Your task to perform on an android device: Open the Play Movies app and select the watchlist tab. Image 0: 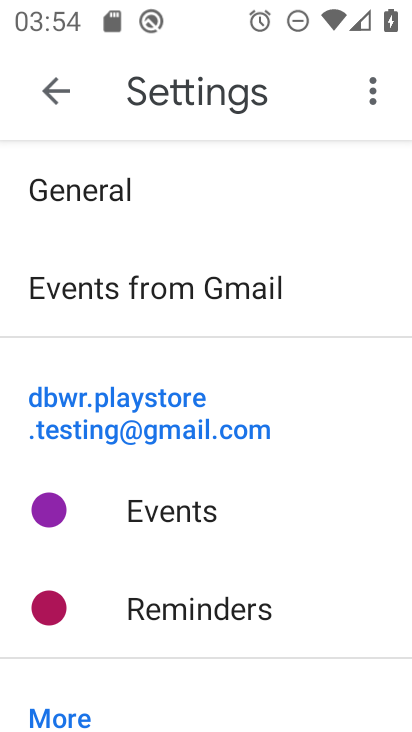
Step 0: press home button
Your task to perform on an android device: Open the Play Movies app and select the watchlist tab. Image 1: 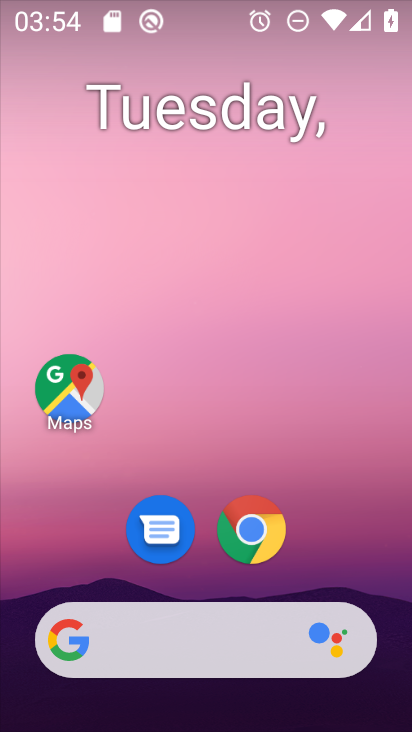
Step 1: drag from (286, 598) to (295, 260)
Your task to perform on an android device: Open the Play Movies app and select the watchlist tab. Image 2: 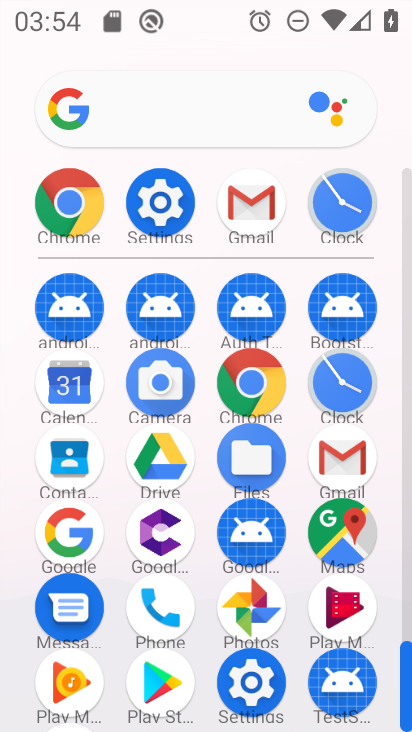
Step 2: click (329, 600)
Your task to perform on an android device: Open the Play Movies app and select the watchlist tab. Image 3: 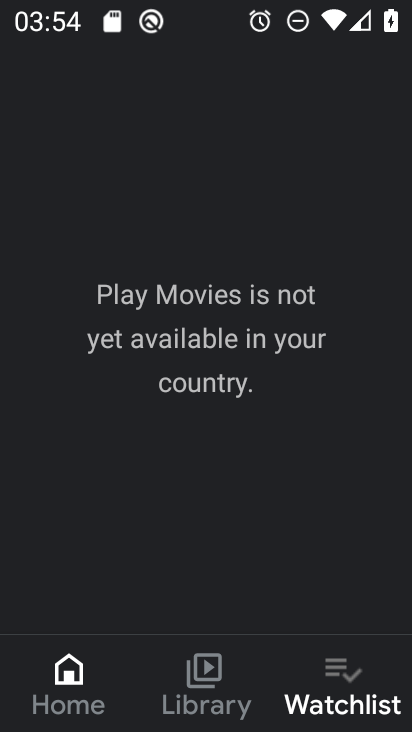
Step 3: click (346, 688)
Your task to perform on an android device: Open the Play Movies app and select the watchlist tab. Image 4: 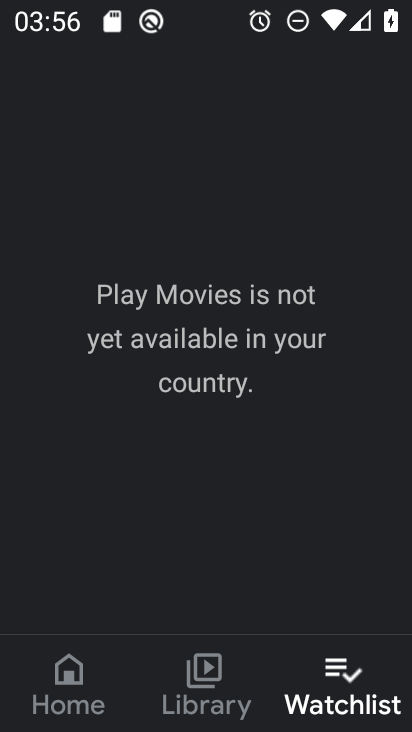
Step 4: task complete